Your task to perform on an android device: turn off notifications settings in the gmail app Image 0: 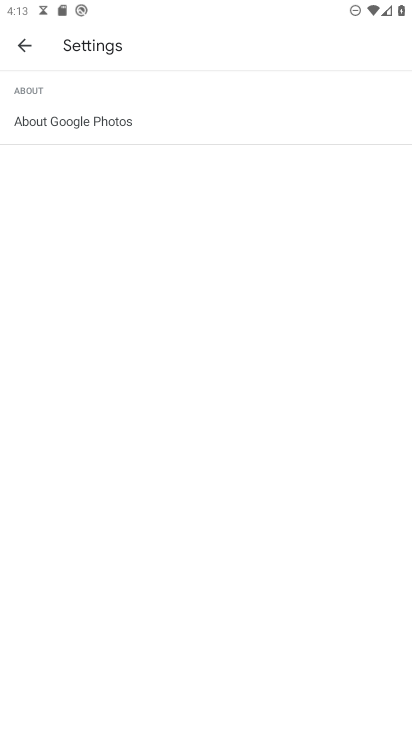
Step 0: press home button
Your task to perform on an android device: turn off notifications settings in the gmail app Image 1: 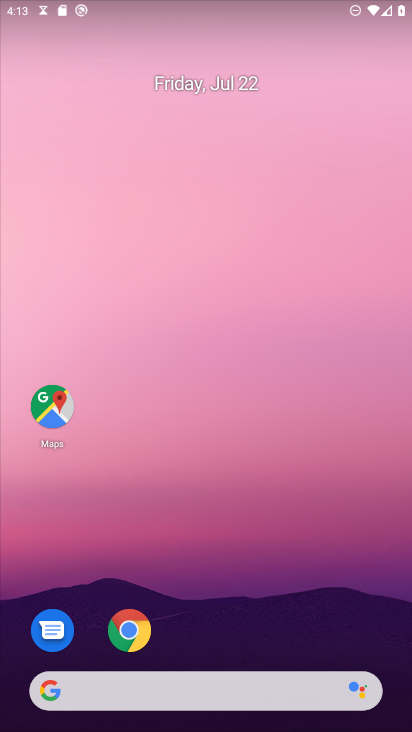
Step 1: drag from (229, 561) to (174, 19)
Your task to perform on an android device: turn off notifications settings in the gmail app Image 2: 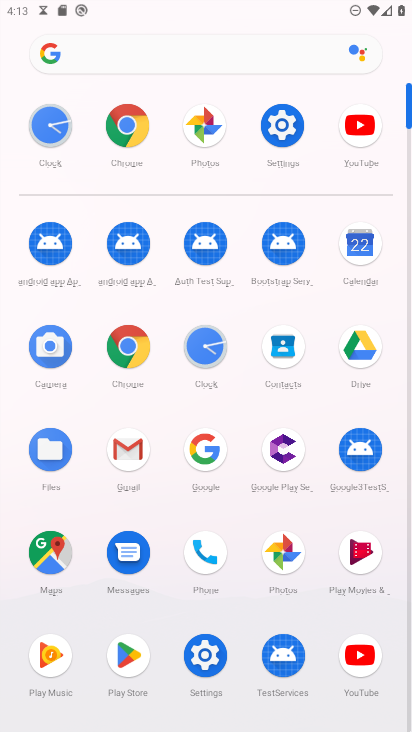
Step 2: click (133, 466)
Your task to perform on an android device: turn off notifications settings in the gmail app Image 3: 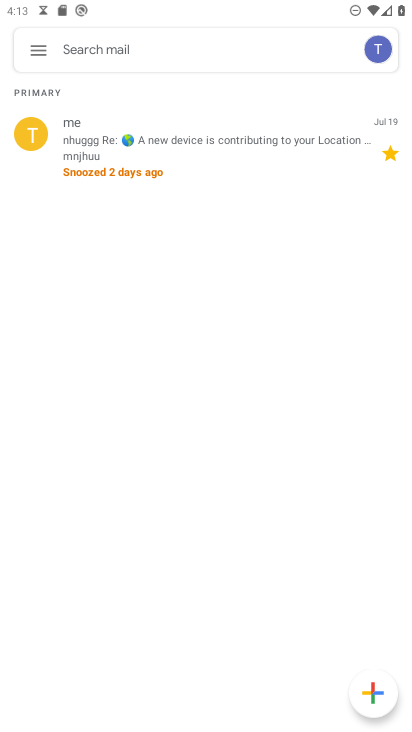
Step 3: click (31, 50)
Your task to perform on an android device: turn off notifications settings in the gmail app Image 4: 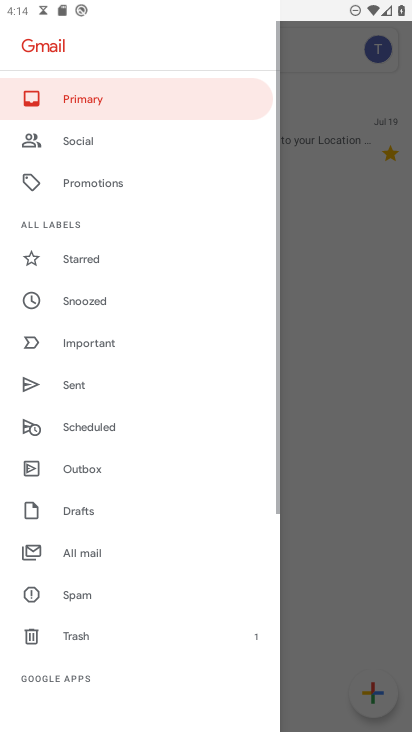
Step 4: drag from (93, 585) to (65, 246)
Your task to perform on an android device: turn off notifications settings in the gmail app Image 5: 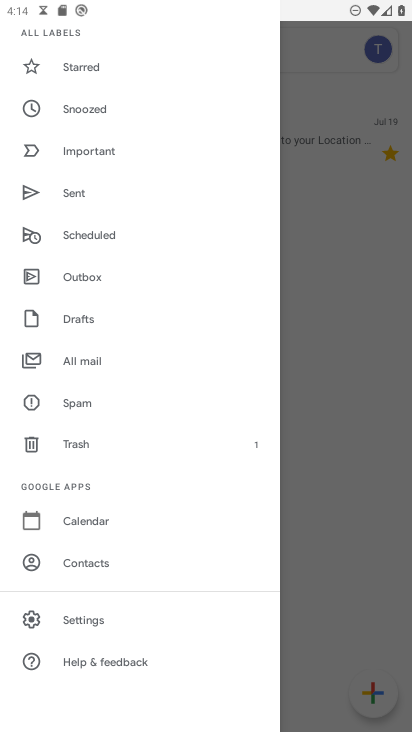
Step 5: click (96, 622)
Your task to perform on an android device: turn off notifications settings in the gmail app Image 6: 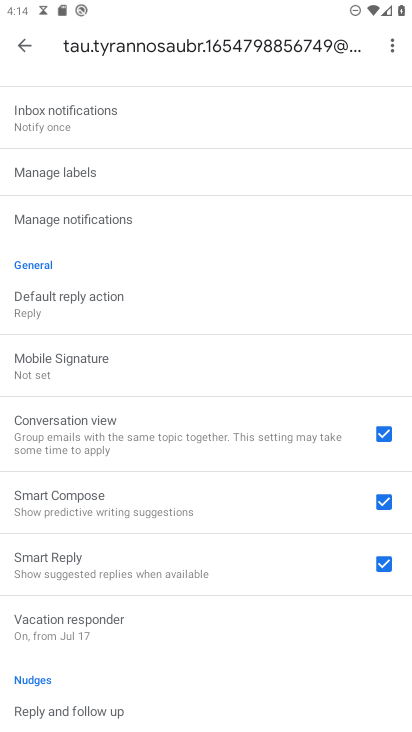
Step 6: click (26, 45)
Your task to perform on an android device: turn off notifications settings in the gmail app Image 7: 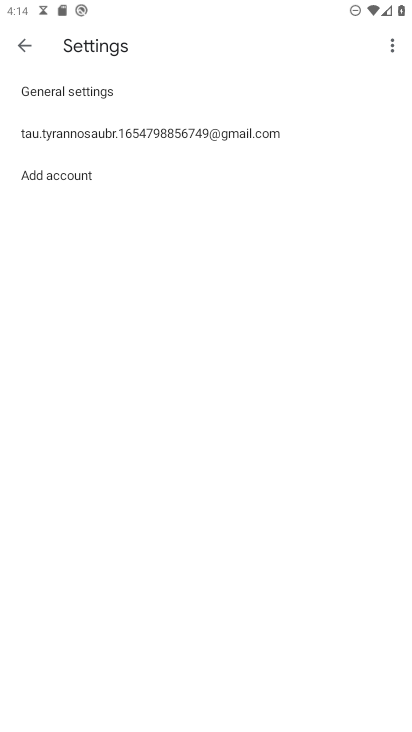
Step 7: click (96, 94)
Your task to perform on an android device: turn off notifications settings in the gmail app Image 8: 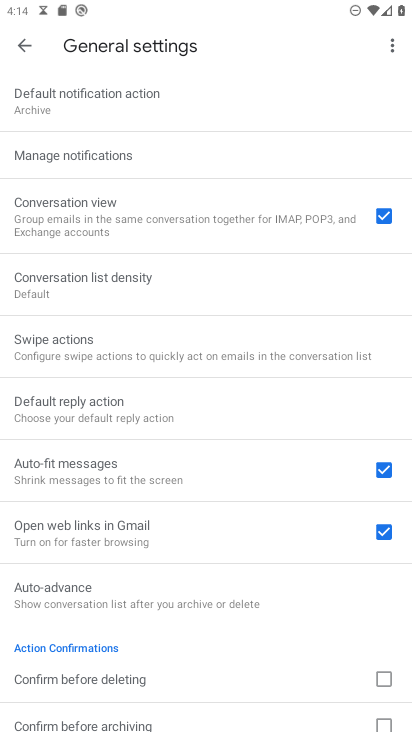
Step 8: click (117, 160)
Your task to perform on an android device: turn off notifications settings in the gmail app Image 9: 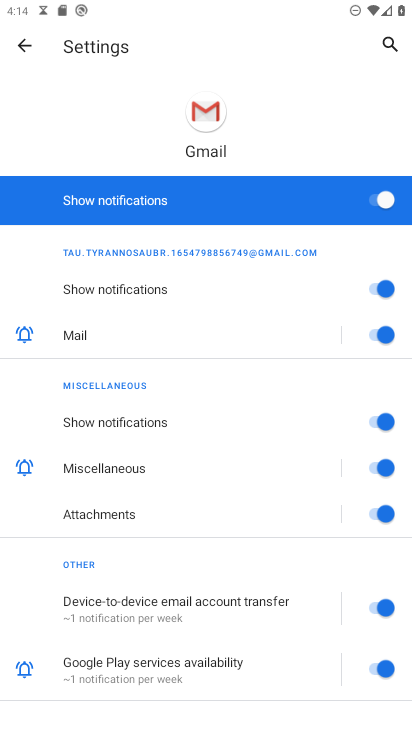
Step 9: click (345, 204)
Your task to perform on an android device: turn off notifications settings in the gmail app Image 10: 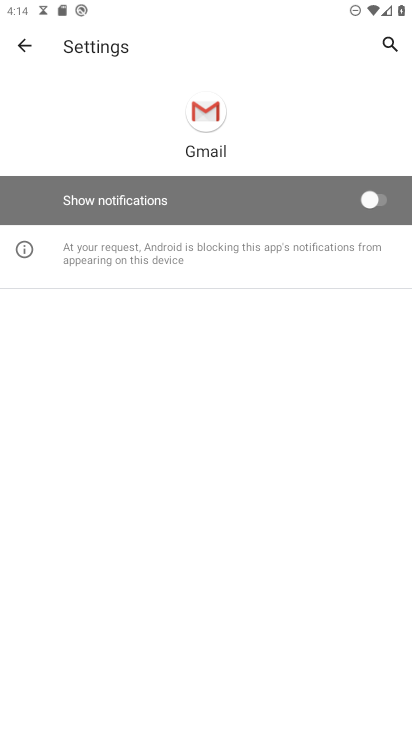
Step 10: task complete